Your task to perform on an android device: Open Chrome and go to the settings page Image 0: 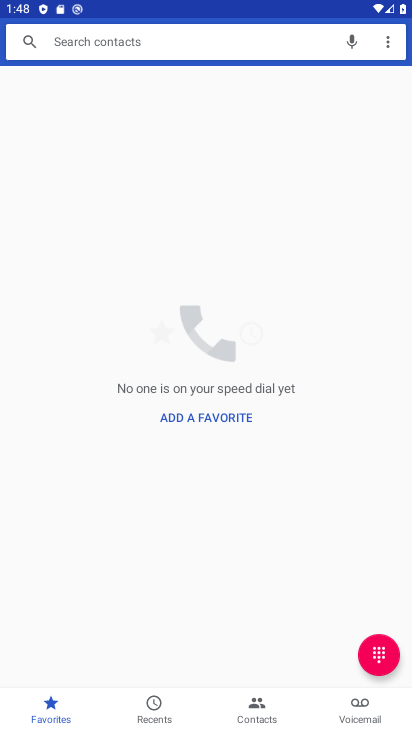
Step 0: press home button
Your task to perform on an android device: Open Chrome and go to the settings page Image 1: 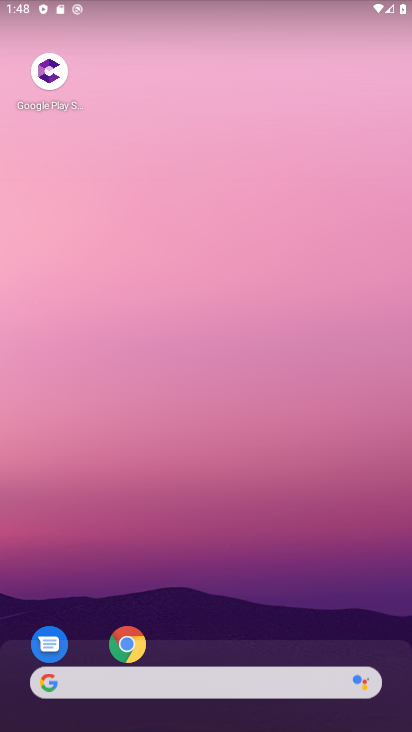
Step 1: drag from (85, 221) to (410, 257)
Your task to perform on an android device: Open Chrome and go to the settings page Image 2: 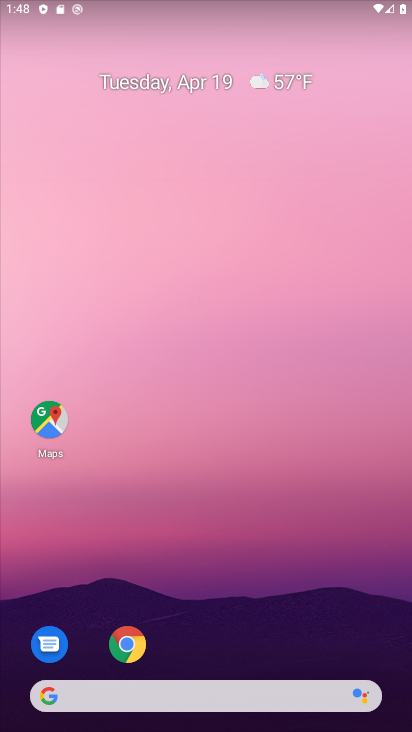
Step 2: click (249, 76)
Your task to perform on an android device: Open Chrome and go to the settings page Image 3: 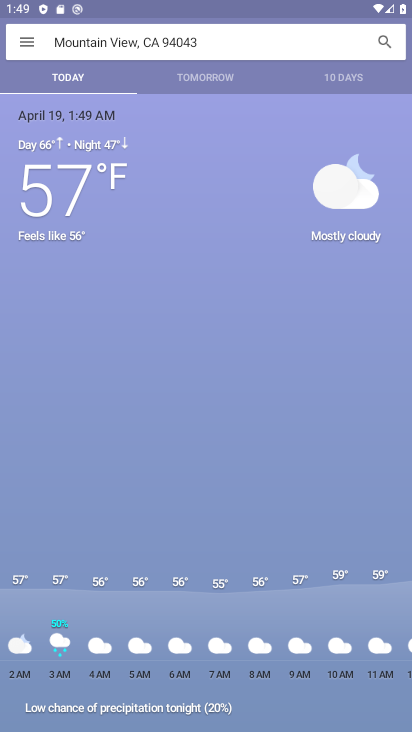
Step 3: click (211, 76)
Your task to perform on an android device: Open Chrome and go to the settings page Image 4: 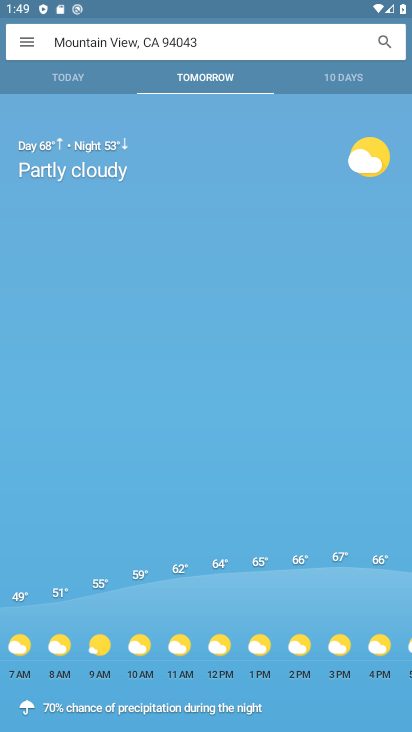
Step 4: task complete